Your task to perform on an android device: What's the weather today? Image 0: 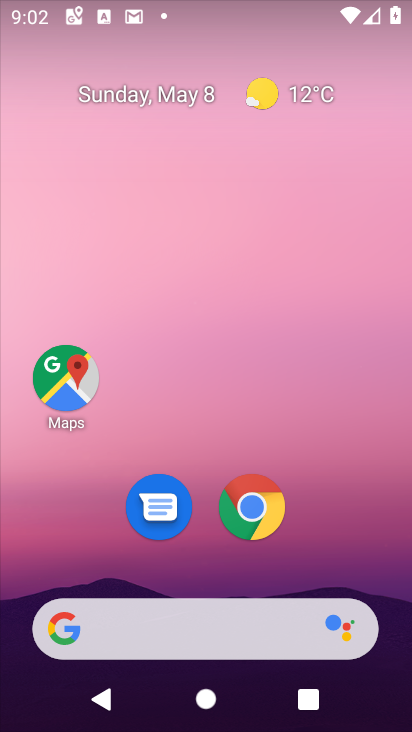
Step 0: click (273, 622)
Your task to perform on an android device: What's the weather today? Image 1: 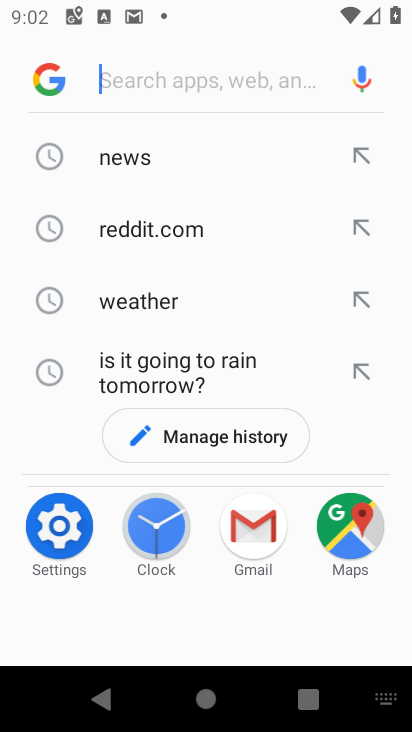
Step 1: type "What's the weather today?"
Your task to perform on an android device: What's the weather today? Image 2: 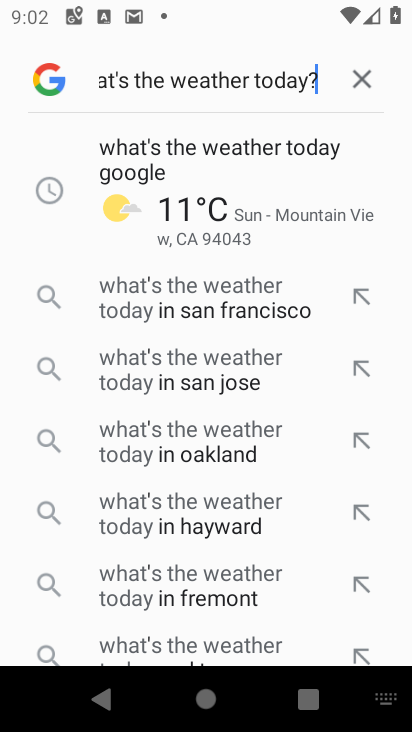
Step 2: click (256, 220)
Your task to perform on an android device: What's the weather today? Image 3: 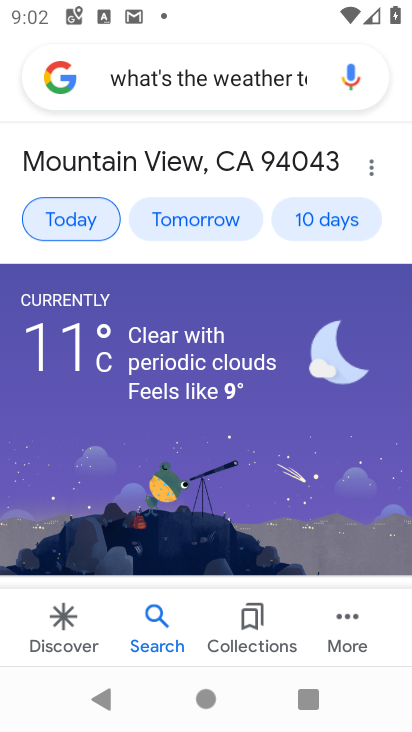
Step 3: task complete